Your task to perform on an android device: find photos in the google photos app Image 0: 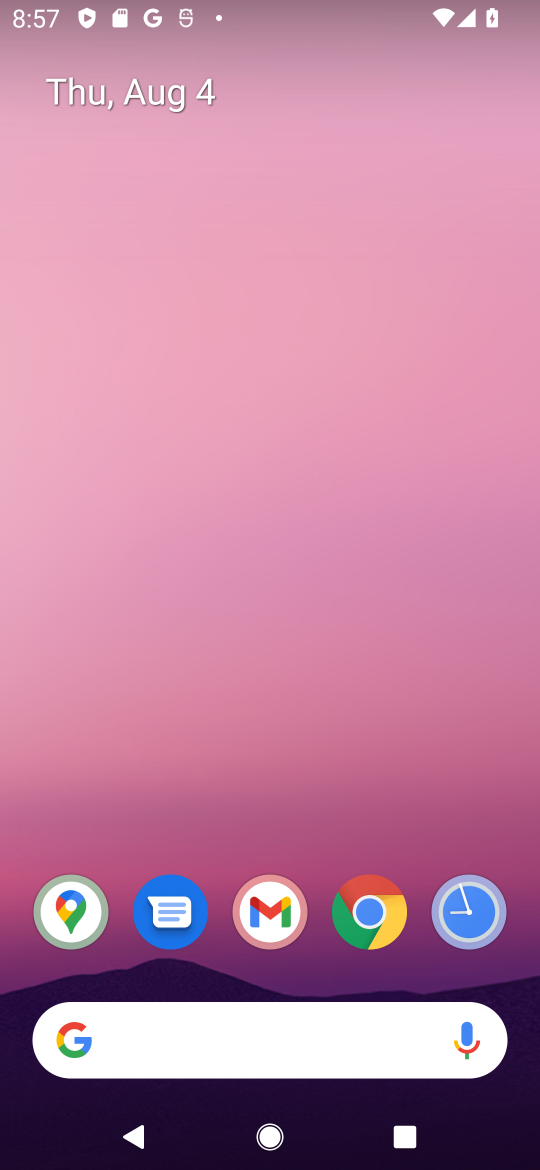
Step 0: drag from (336, 825) to (357, 41)
Your task to perform on an android device: find photos in the google photos app Image 1: 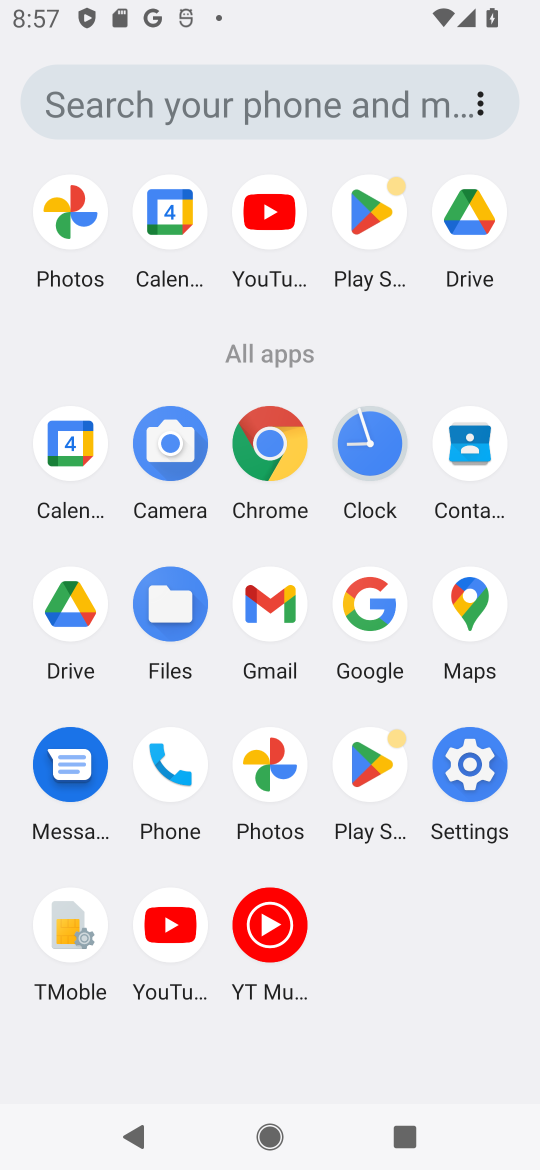
Step 1: click (69, 236)
Your task to perform on an android device: find photos in the google photos app Image 2: 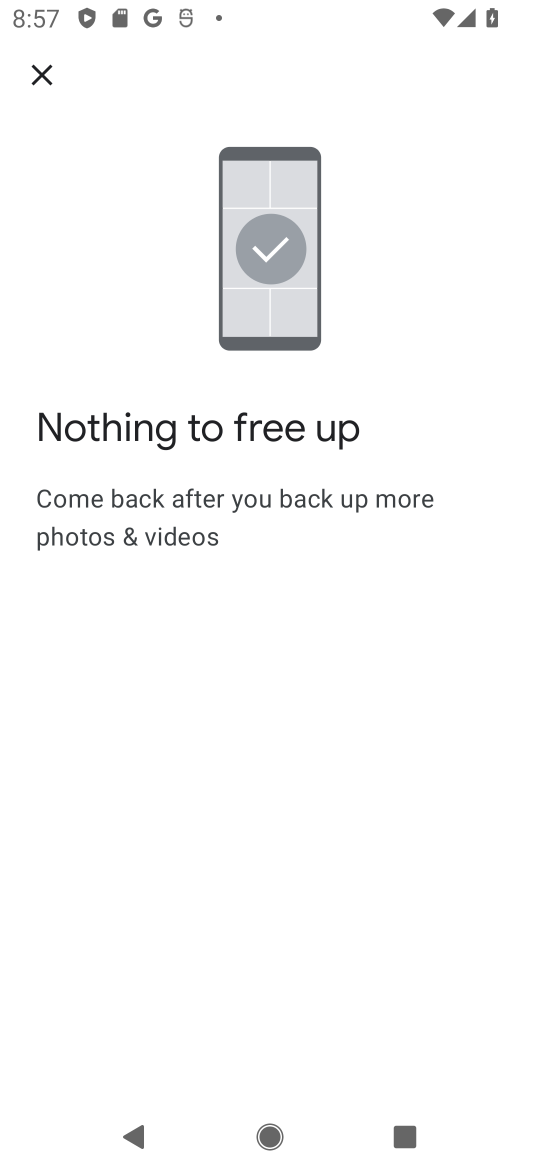
Step 2: click (32, 84)
Your task to perform on an android device: find photos in the google photos app Image 3: 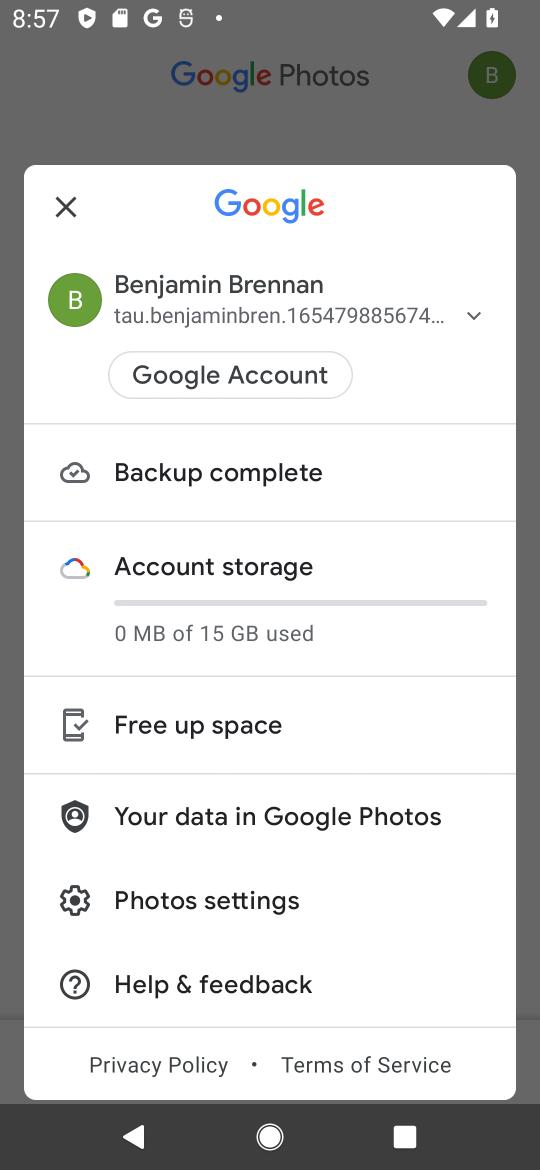
Step 3: click (71, 217)
Your task to perform on an android device: find photos in the google photos app Image 4: 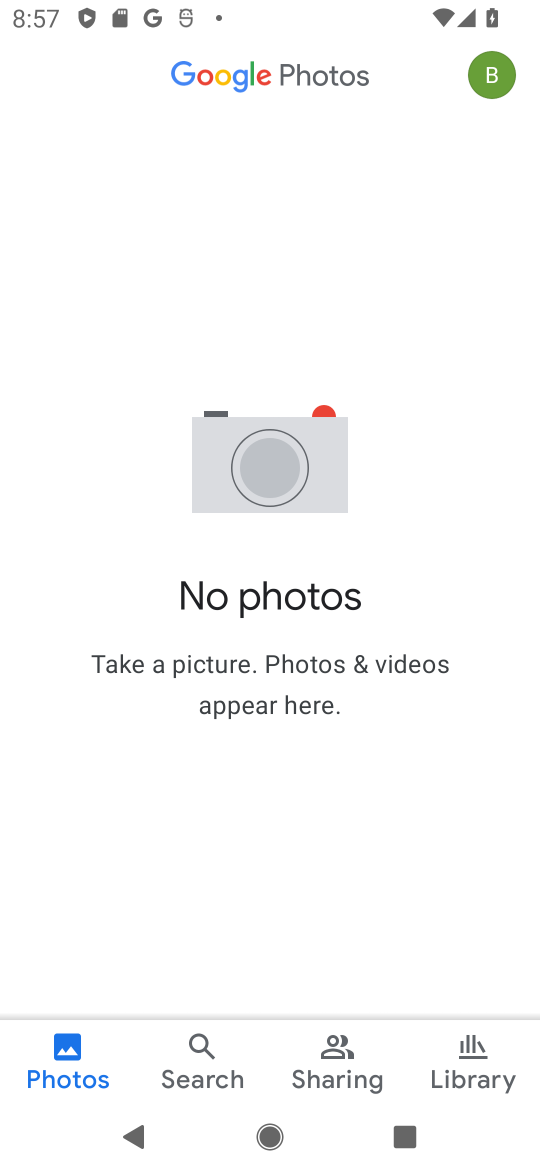
Step 4: task complete